Your task to perform on an android device: See recent photos Image 0: 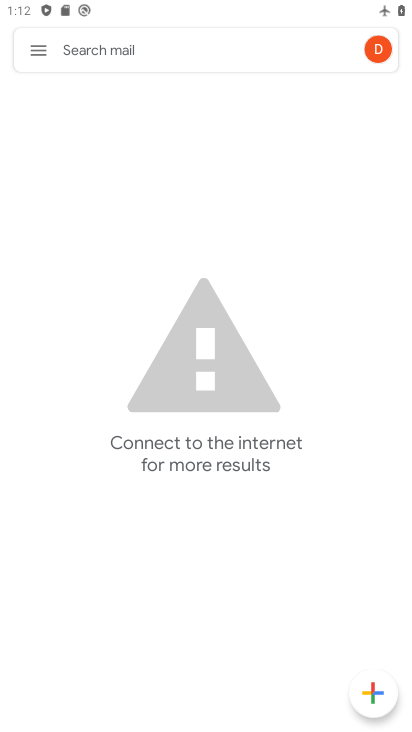
Step 0: press home button
Your task to perform on an android device: See recent photos Image 1: 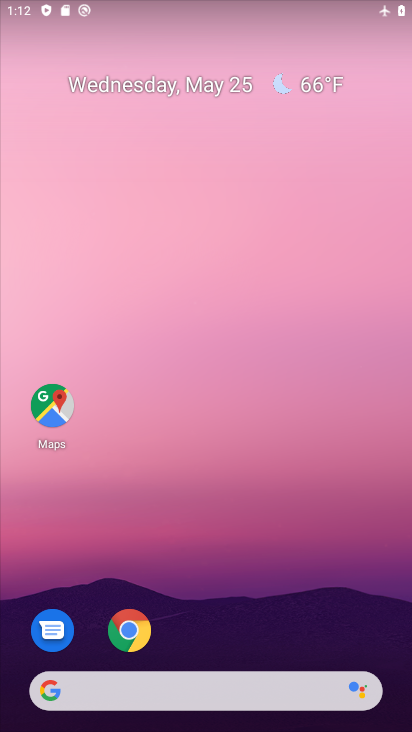
Step 1: drag from (212, 639) to (232, 294)
Your task to perform on an android device: See recent photos Image 2: 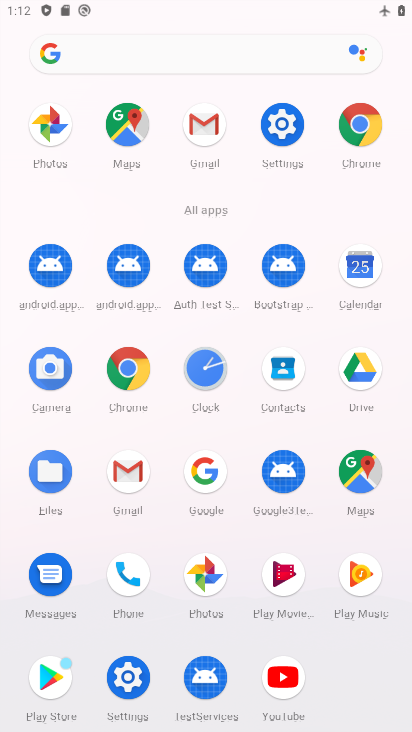
Step 2: click (201, 566)
Your task to perform on an android device: See recent photos Image 3: 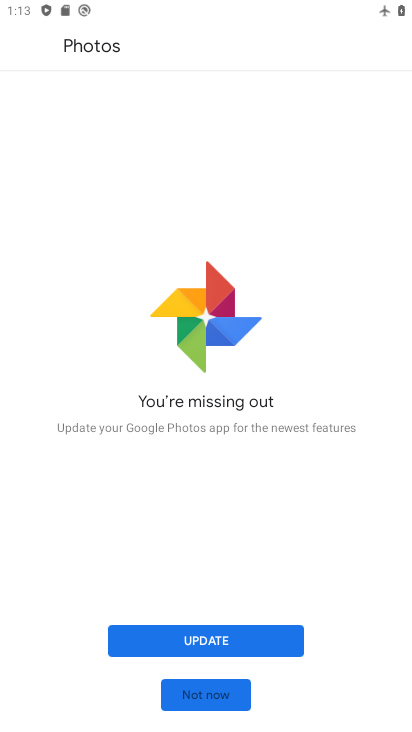
Step 3: click (204, 638)
Your task to perform on an android device: See recent photos Image 4: 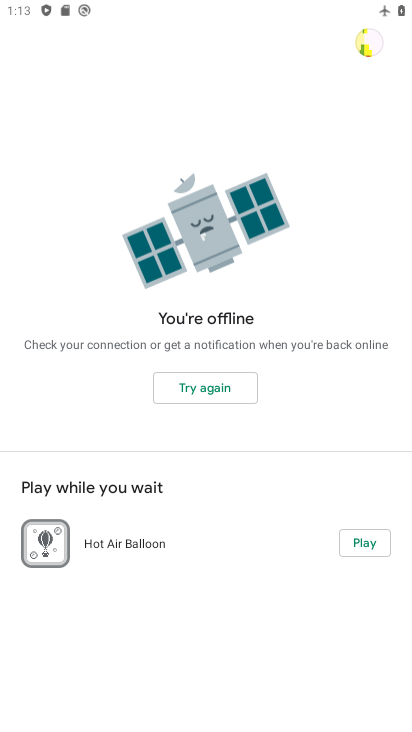
Step 4: task complete